Your task to perform on an android device: Open the stopwatch Image 0: 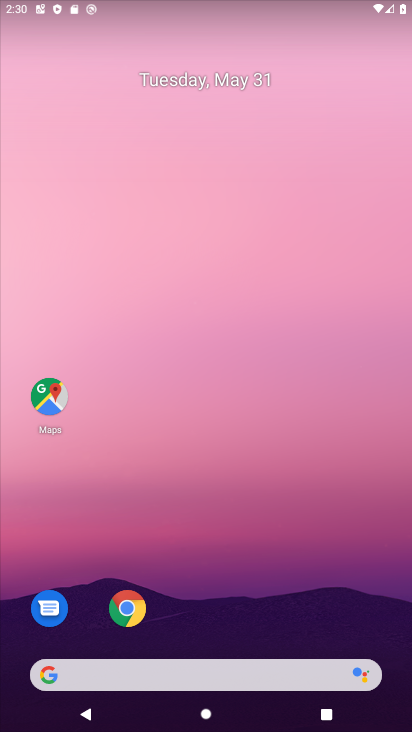
Step 0: drag from (191, 636) to (268, 115)
Your task to perform on an android device: Open the stopwatch Image 1: 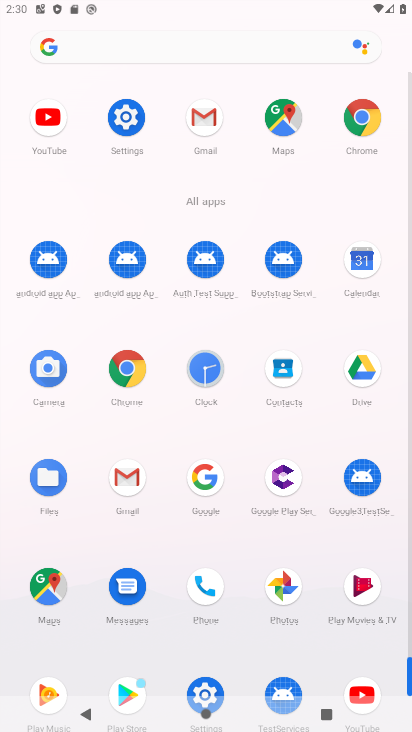
Step 1: click (218, 372)
Your task to perform on an android device: Open the stopwatch Image 2: 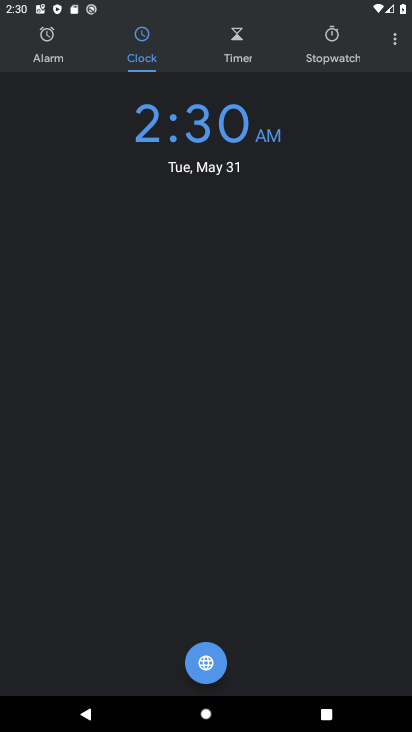
Step 2: click (311, 53)
Your task to perform on an android device: Open the stopwatch Image 3: 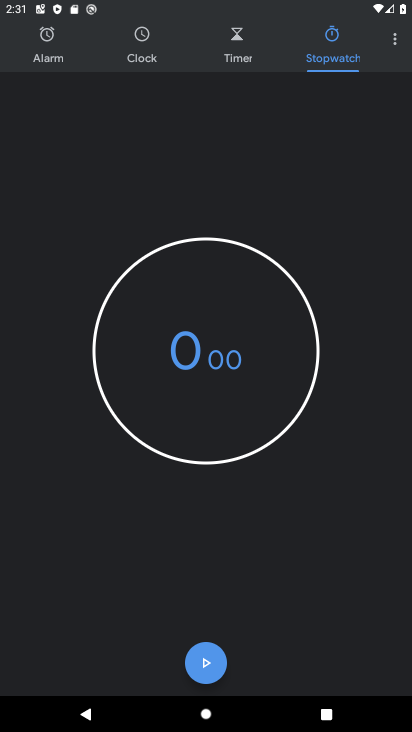
Step 3: click (200, 648)
Your task to perform on an android device: Open the stopwatch Image 4: 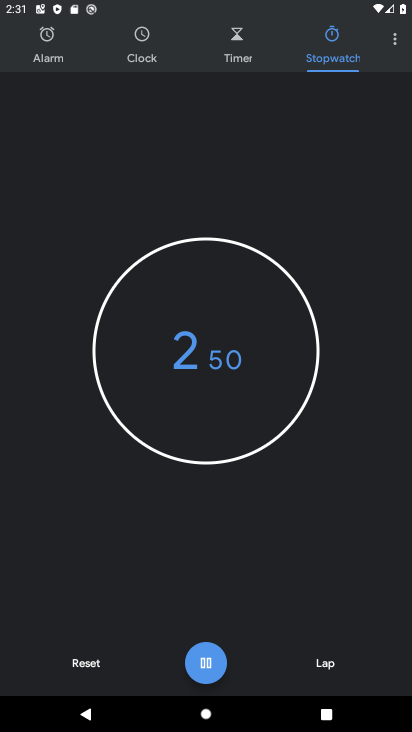
Step 4: task complete